Your task to perform on an android device: open the mobile data screen to see how much data has been used Image 0: 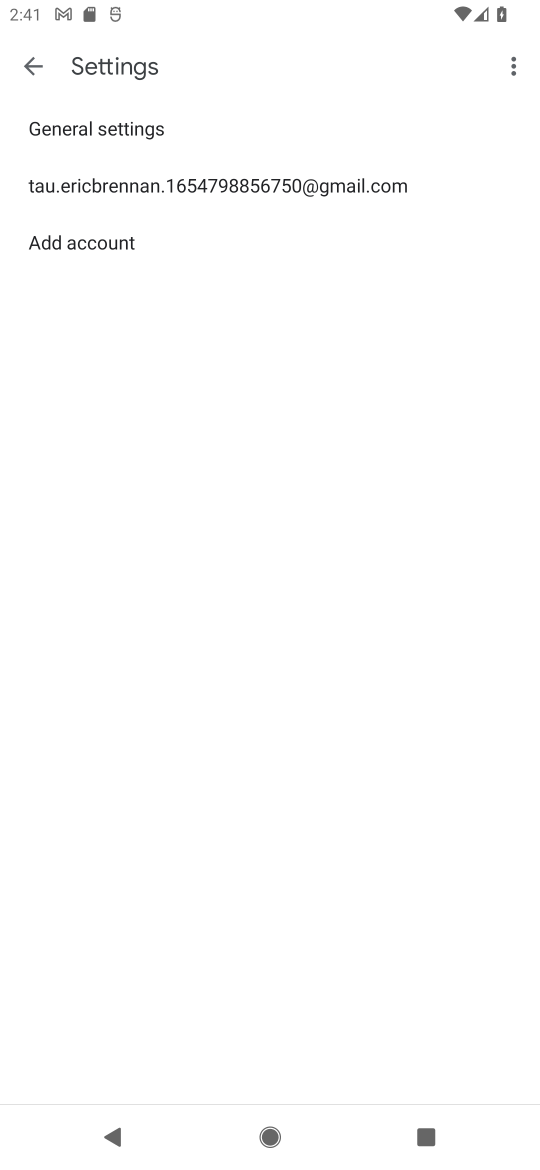
Step 0: press home button
Your task to perform on an android device: open the mobile data screen to see how much data has been used Image 1: 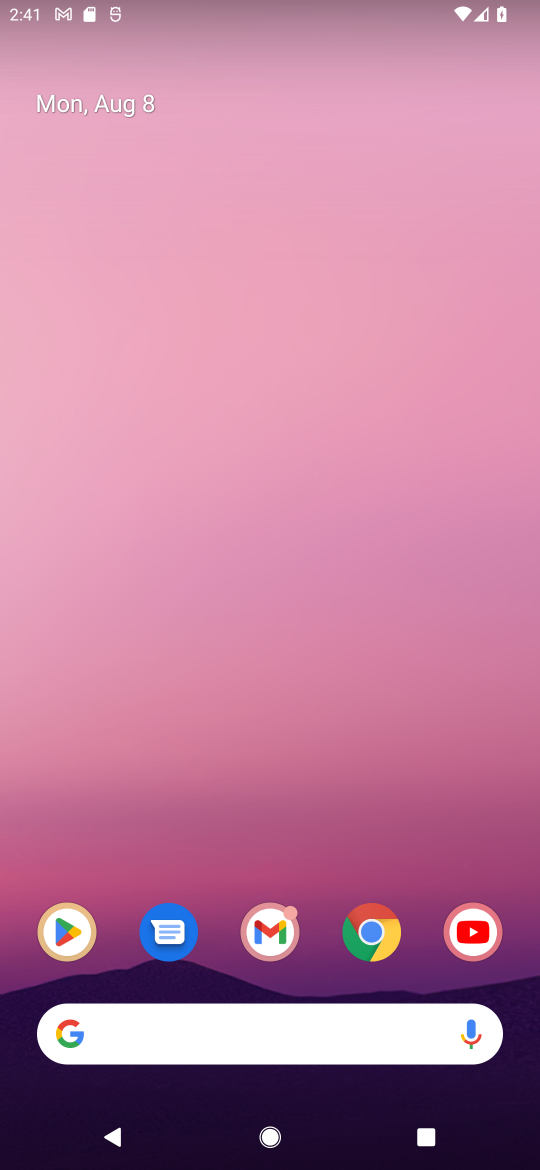
Step 1: drag from (465, 655) to (522, 258)
Your task to perform on an android device: open the mobile data screen to see how much data has been used Image 2: 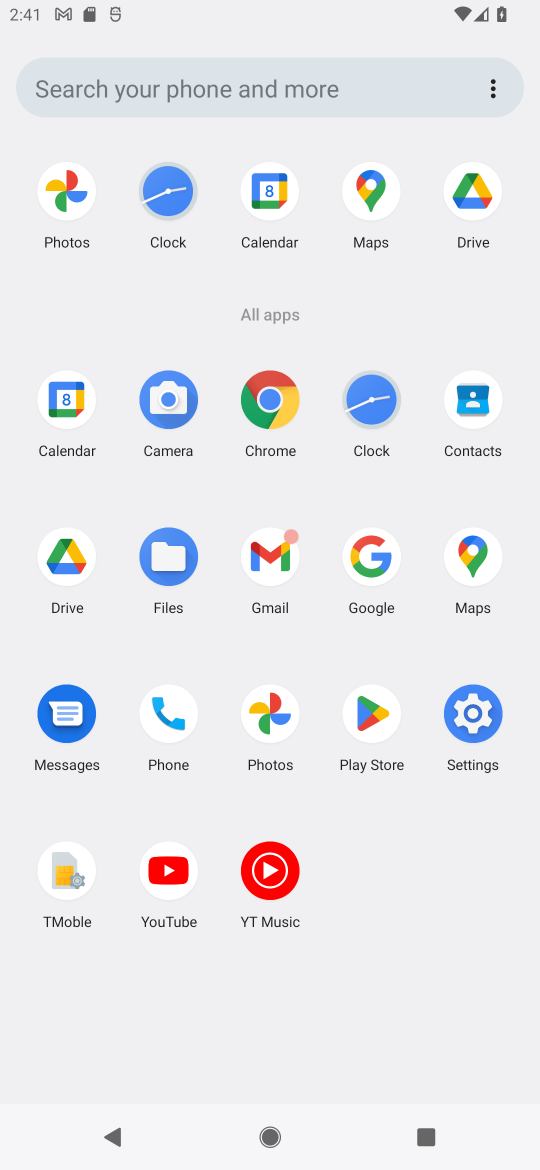
Step 2: click (483, 729)
Your task to perform on an android device: open the mobile data screen to see how much data has been used Image 3: 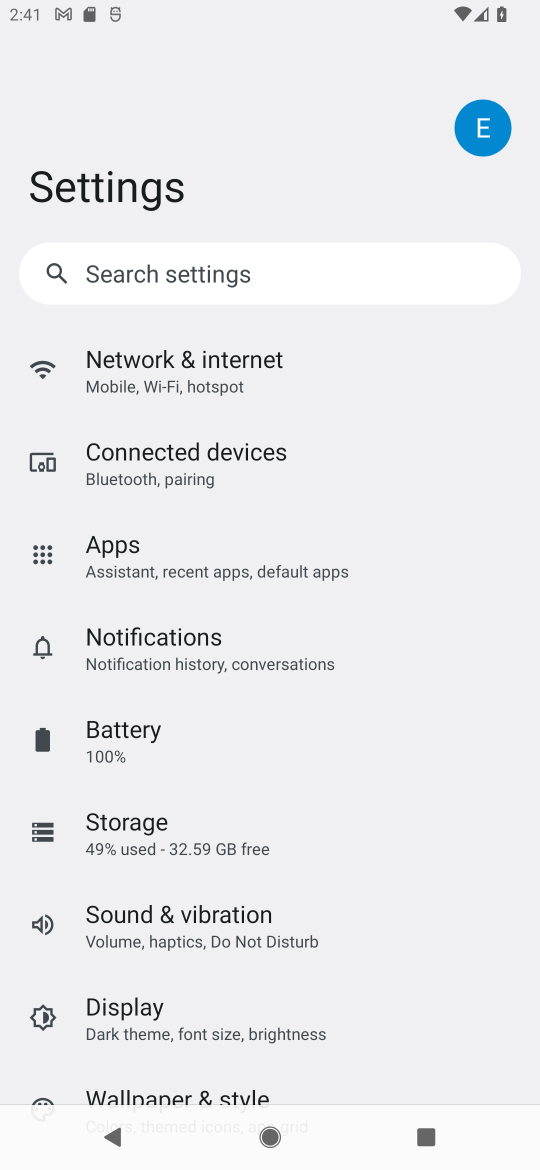
Step 3: click (221, 378)
Your task to perform on an android device: open the mobile data screen to see how much data has been used Image 4: 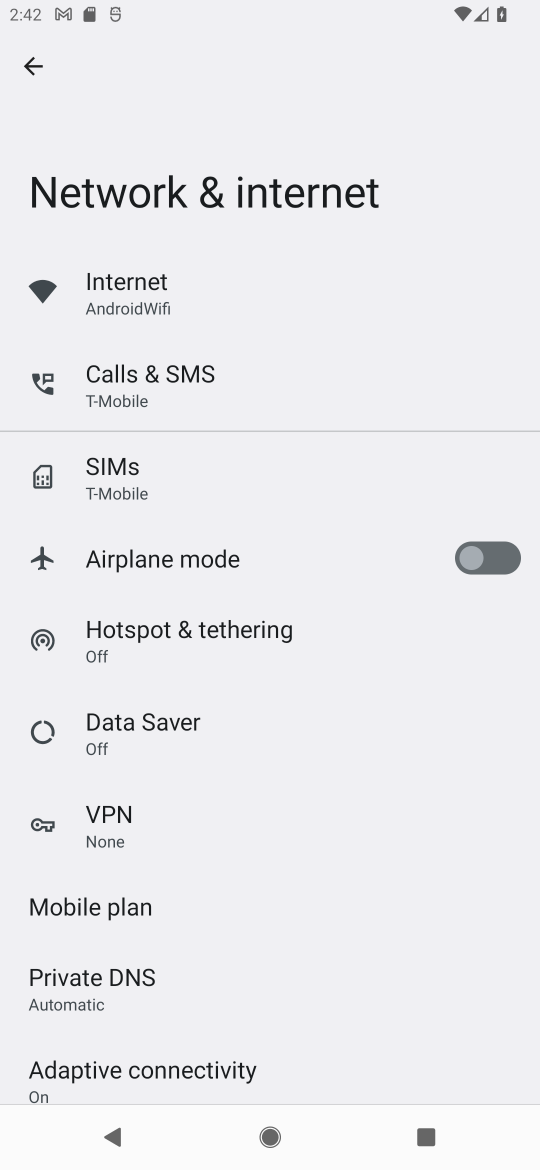
Step 4: click (126, 300)
Your task to perform on an android device: open the mobile data screen to see how much data has been used Image 5: 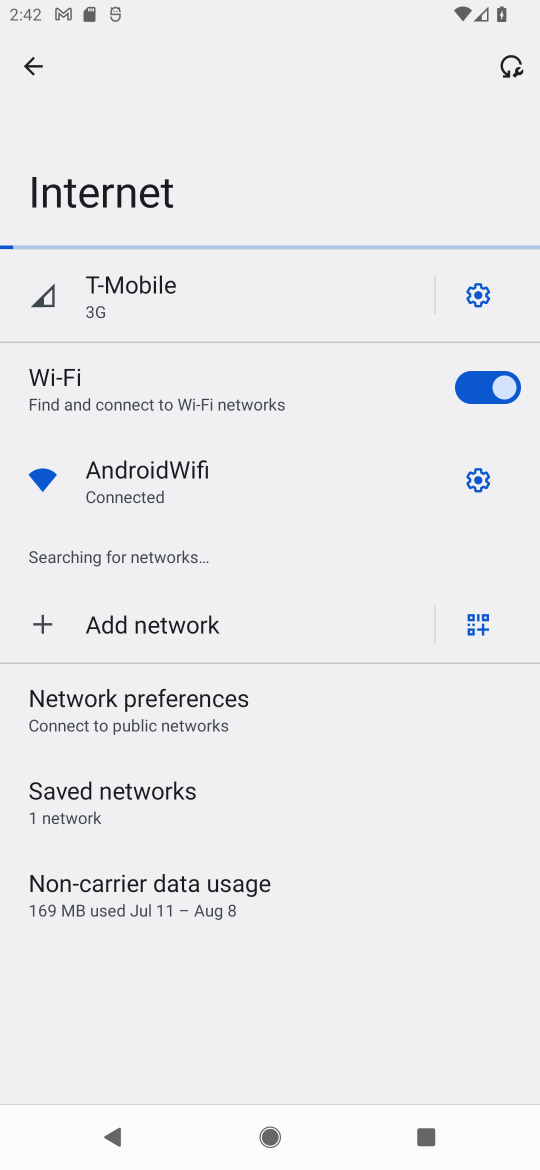
Step 5: click (153, 305)
Your task to perform on an android device: open the mobile data screen to see how much data has been used Image 6: 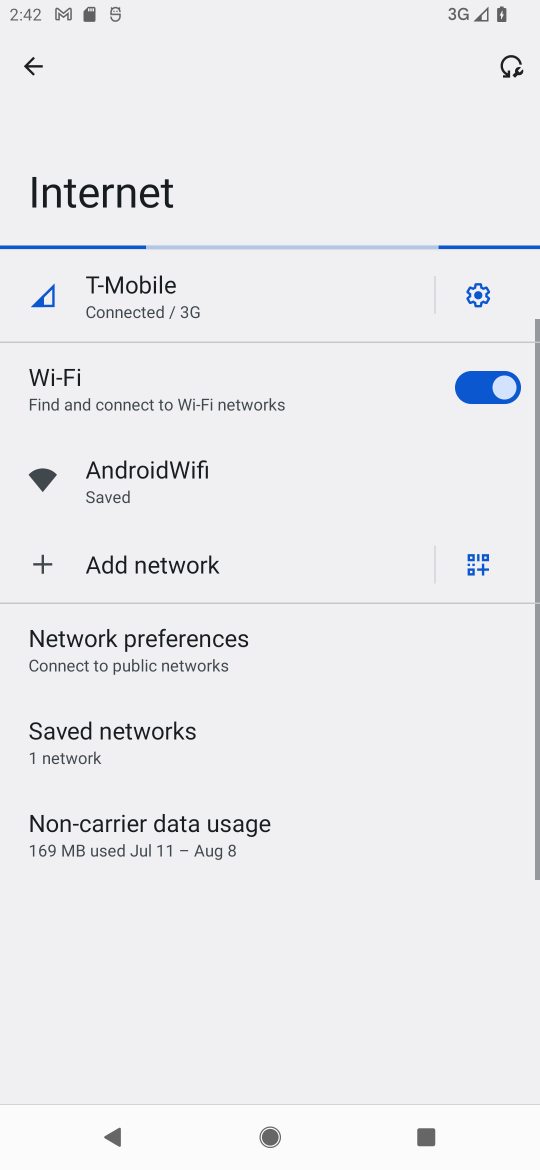
Step 6: task complete